Your task to perform on an android device: What's the weather going to be tomorrow? Image 0: 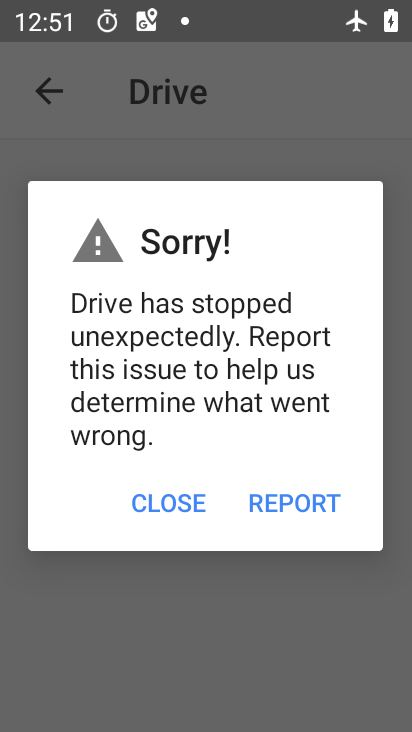
Step 0: press home button
Your task to perform on an android device: What's the weather going to be tomorrow? Image 1: 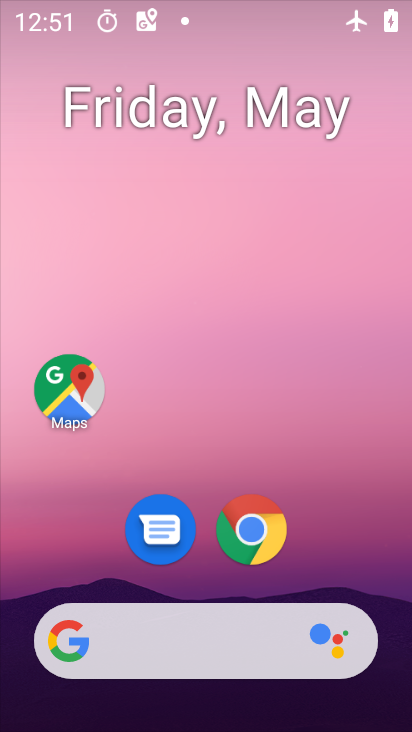
Step 1: drag from (194, 626) to (277, 38)
Your task to perform on an android device: What's the weather going to be tomorrow? Image 2: 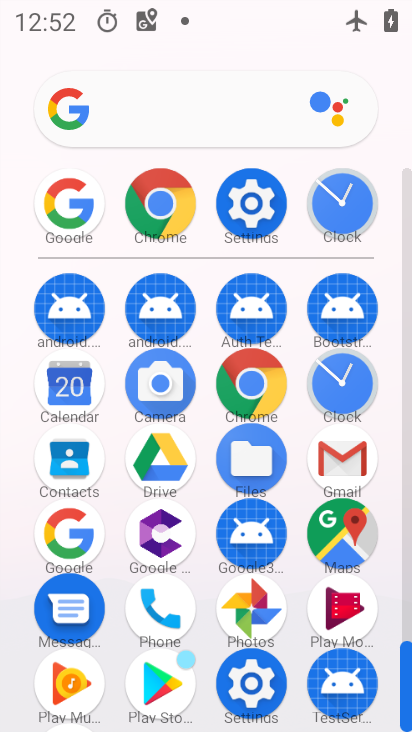
Step 2: click (80, 526)
Your task to perform on an android device: What's the weather going to be tomorrow? Image 3: 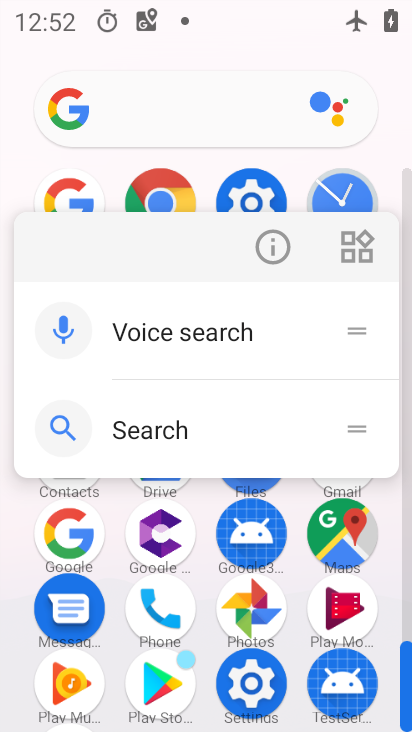
Step 3: click (76, 542)
Your task to perform on an android device: What's the weather going to be tomorrow? Image 4: 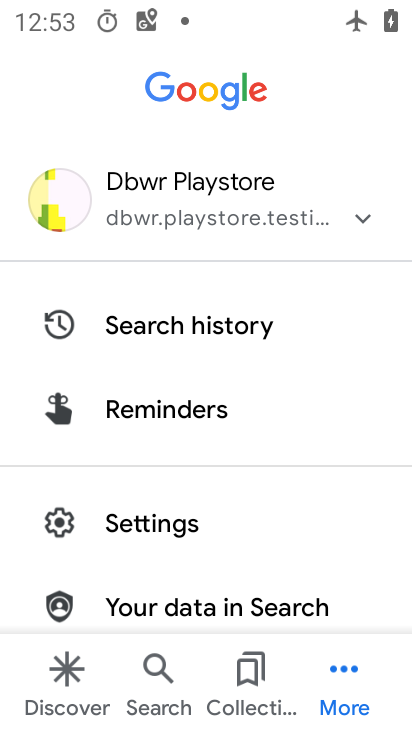
Step 4: drag from (175, 536) to (248, 226)
Your task to perform on an android device: What's the weather going to be tomorrow? Image 5: 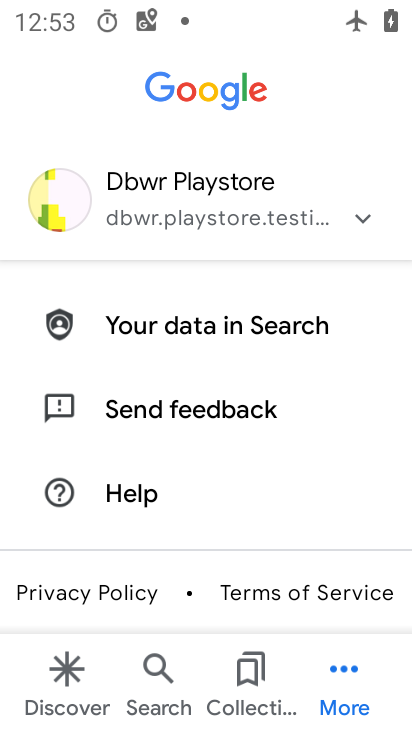
Step 5: drag from (227, 479) to (272, 185)
Your task to perform on an android device: What's the weather going to be tomorrow? Image 6: 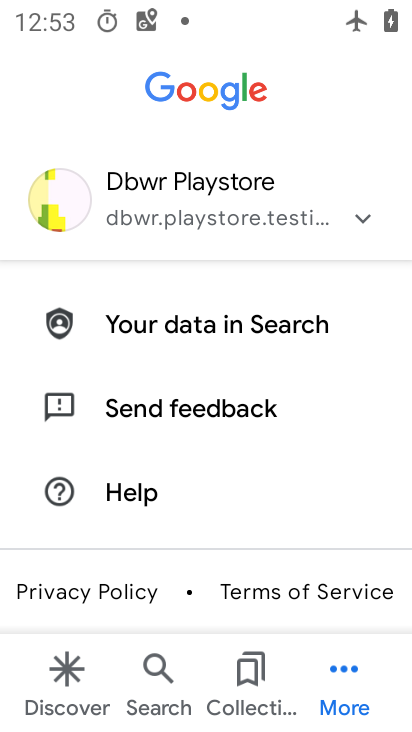
Step 6: click (67, 657)
Your task to perform on an android device: What's the weather going to be tomorrow? Image 7: 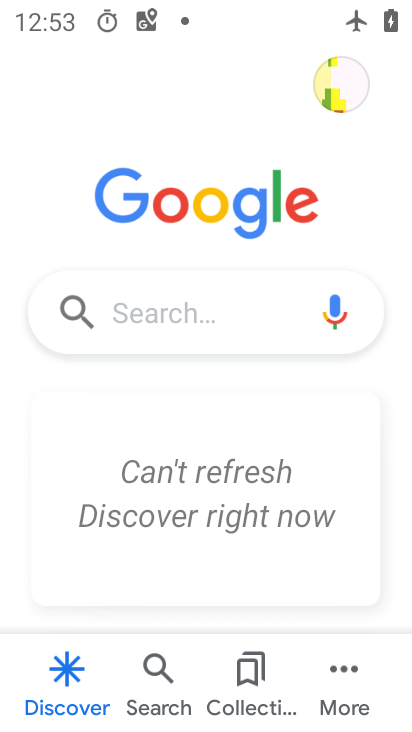
Step 7: click (166, 332)
Your task to perform on an android device: What's the weather going to be tomorrow? Image 8: 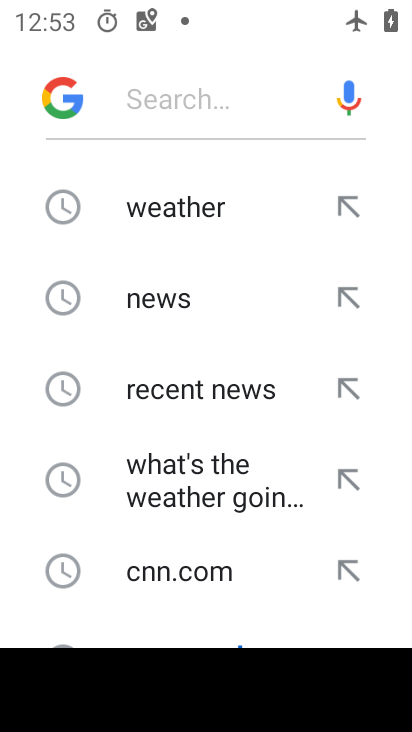
Step 8: click (281, 201)
Your task to perform on an android device: What's the weather going to be tomorrow? Image 9: 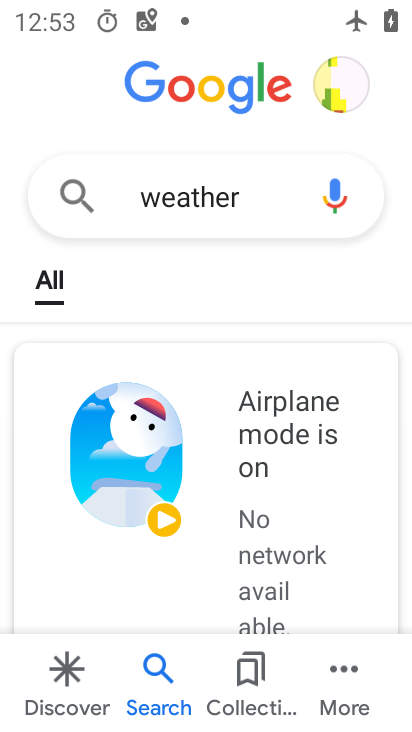
Step 9: task complete